Your task to perform on an android device: Open settings on Google Maps Image 0: 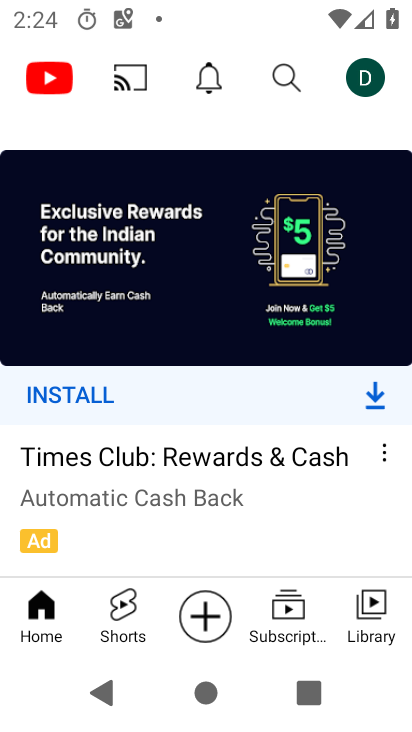
Step 0: press home button
Your task to perform on an android device: Open settings on Google Maps Image 1: 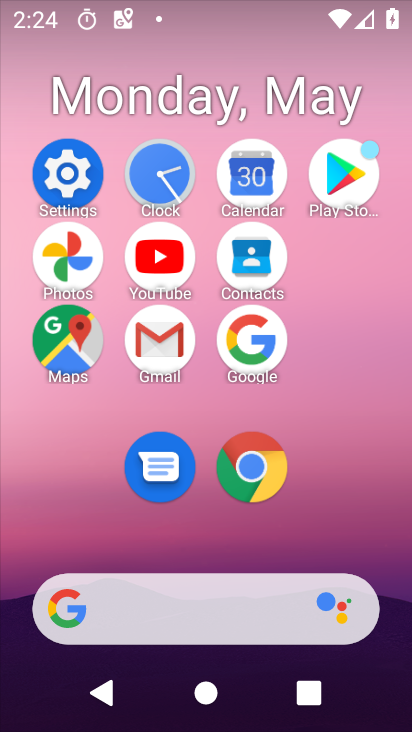
Step 1: click (64, 334)
Your task to perform on an android device: Open settings on Google Maps Image 2: 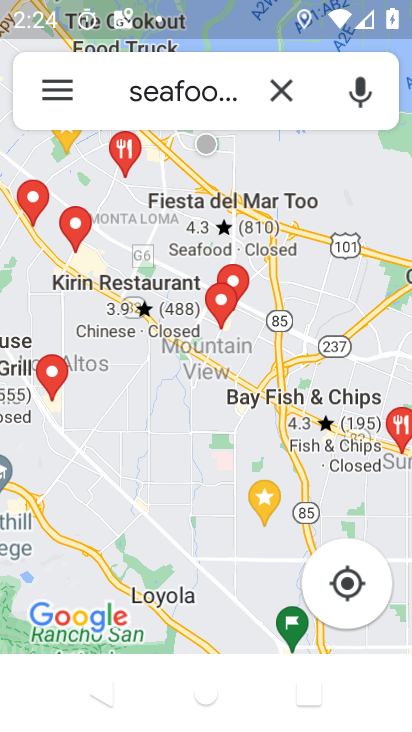
Step 2: click (83, 96)
Your task to perform on an android device: Open settings on Google Maps Image 3: 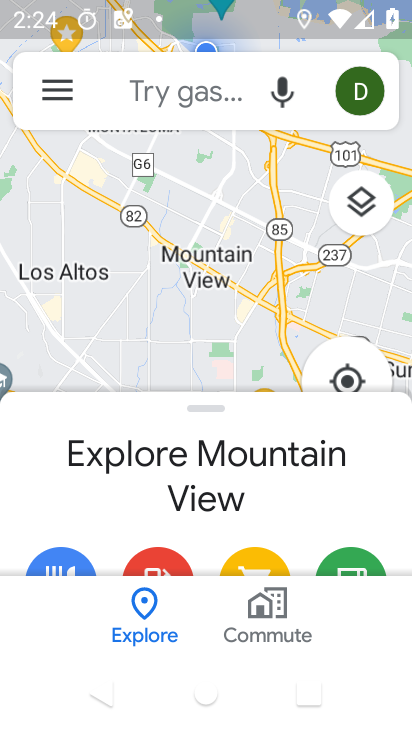
Step 3: click (38, 100)
Your task to perform on an android device: Open settings on Google Maps Image 4: 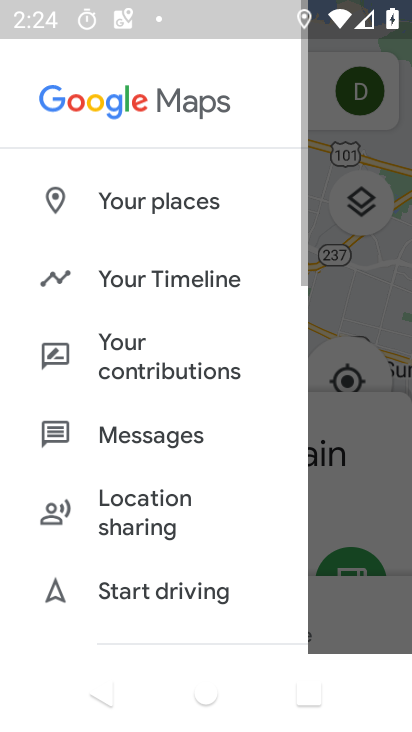
Step 4: drag from (191, 509) to (180, 93)
Your task to perform on an android device: Open settings on Google Maps Image 5: 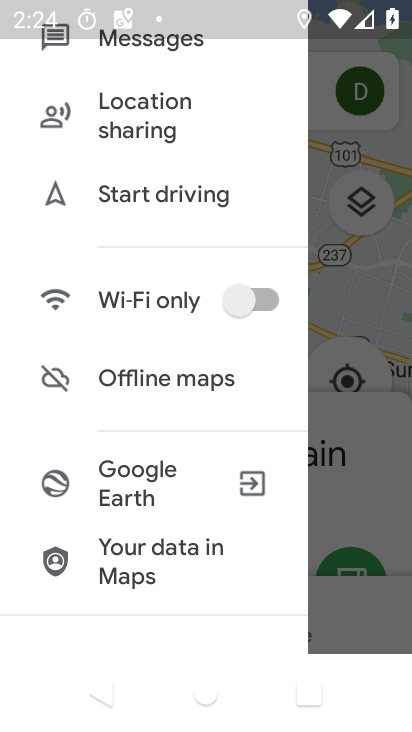
Step 5: drag from (167, 514) to (193, 179)
Your task to perform on an android device: Open settings on Google Maps Image 6: 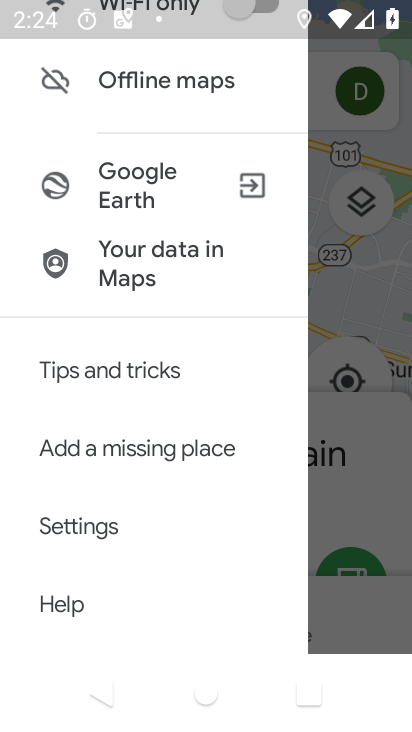
Step 6: click (117, 554)
Your task to perform on an android device: Open settings on Google Maps Image 7: 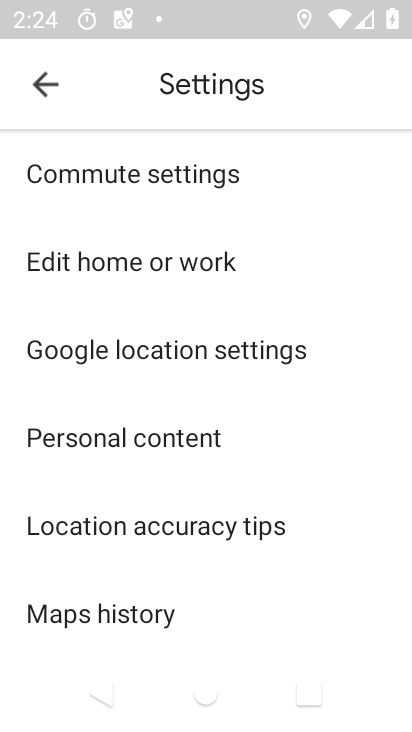
Step 7: task complete